Your task to perform on an android device: When is my next appointment? Image 0: 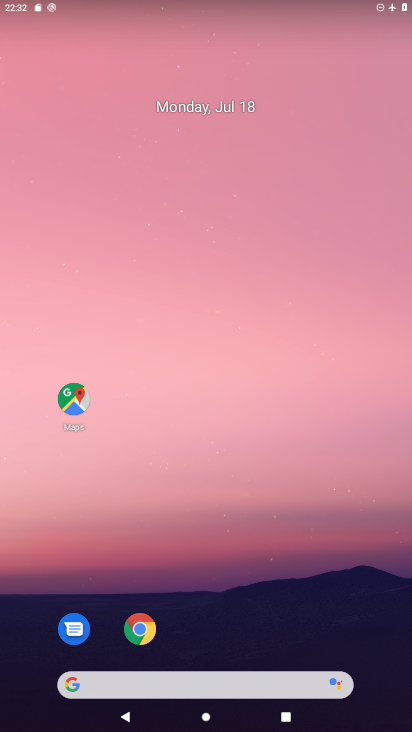
Step 0: drag from (270, 294) to (228, 42)
Your task to perform on an android device: When is my next appointment? Image 1: 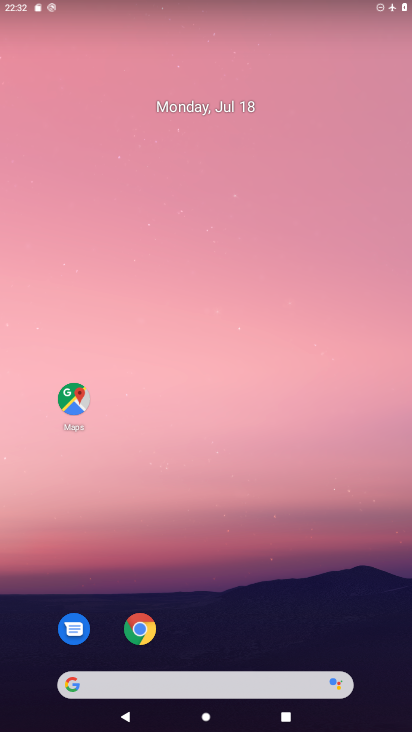
Step 1: drag from (296, 556) to (231, 2)
Your task to perform on an android device: When is my next appointment? Image 2: 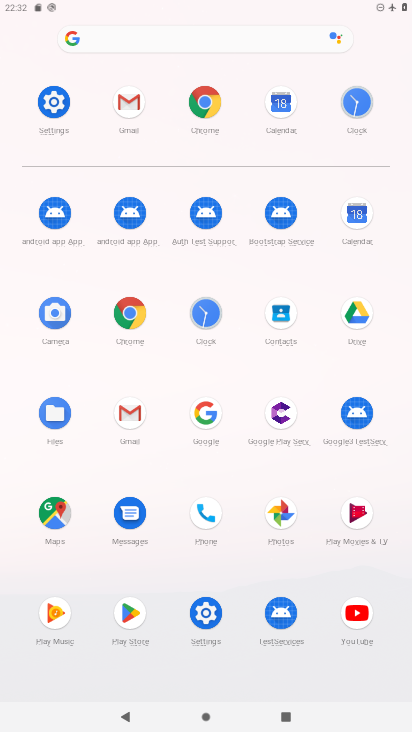
Step 2: click (360, 206)
Your task to perform on an android device: When is my next appointment? Image 3: 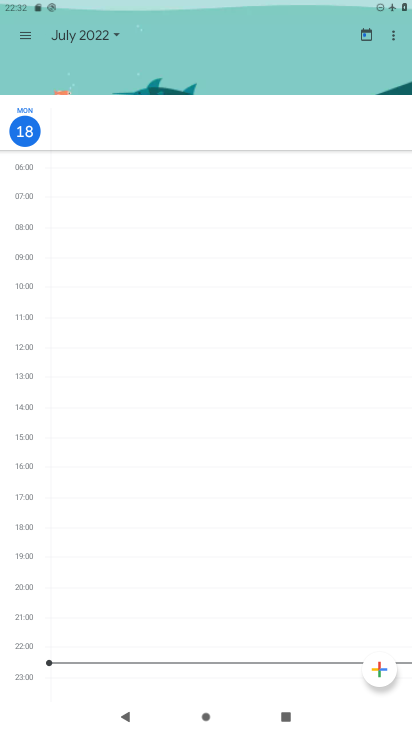
Step 3: click (35, 28)
Your task to perform on an android device: When is my next appointment? Image 4: 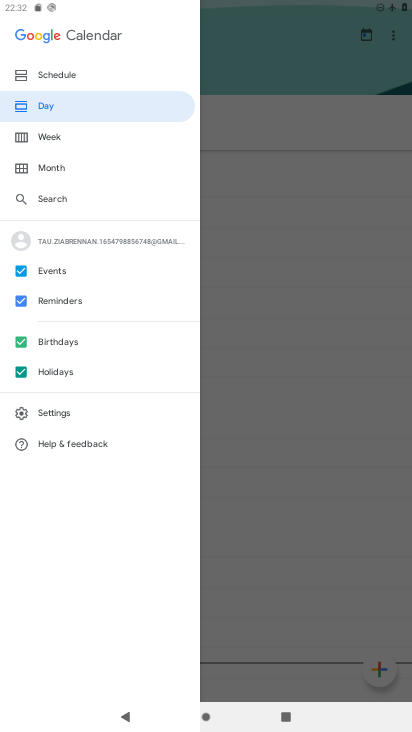
Step 4: click (30, 32)
Your task to perform on an android device: When is my next appointment? Image 5: 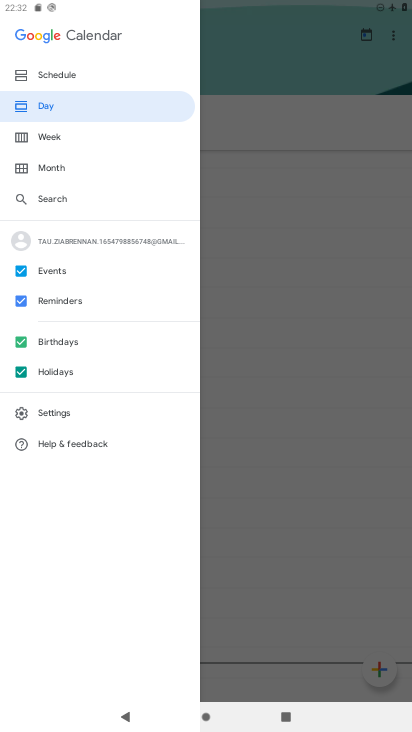
Step 5: click (50, 134)
Your task to perform on an android device: When is my next appointment? Image 6: 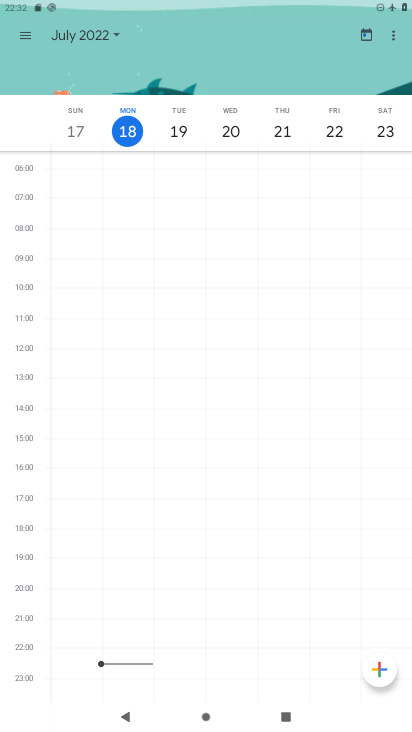
Step 6: task complete